Your task to perform on an android device: Open Youtube and go to the subscriptions tab Image 0: 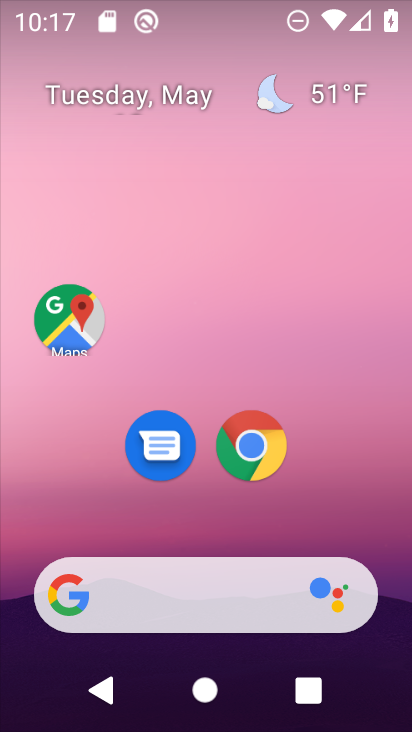
Step 0: drag from (193, 574) to (192, 105)
Your task to perform on an android device: Open Youtube and go to the subscriptions tab Image 1: 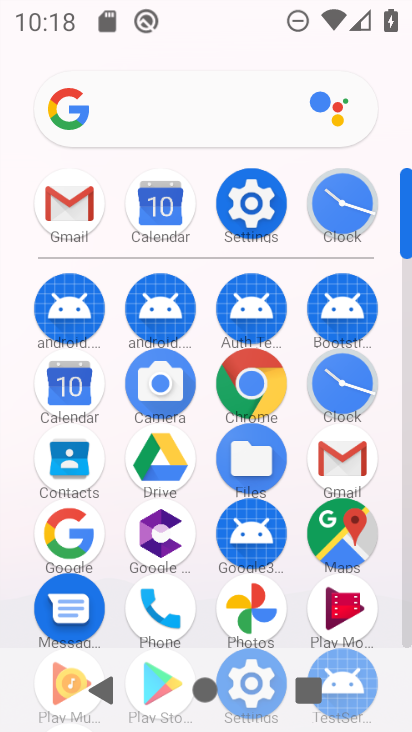
Step 1: drag from (204, 583) to (168, 185)
Your task to perform on an android device: Open Youtube and go to the subscriptions tab Image 2: 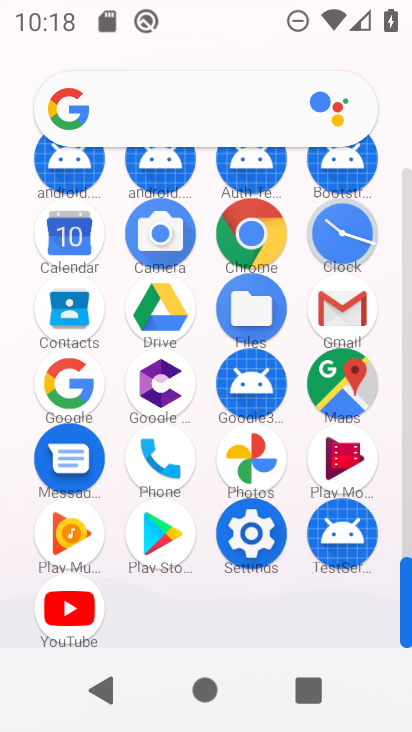
Step 2: click (77, 616)
Your task to perform on an android device: Open Youtube and go to the subscriptions tab Image 3: 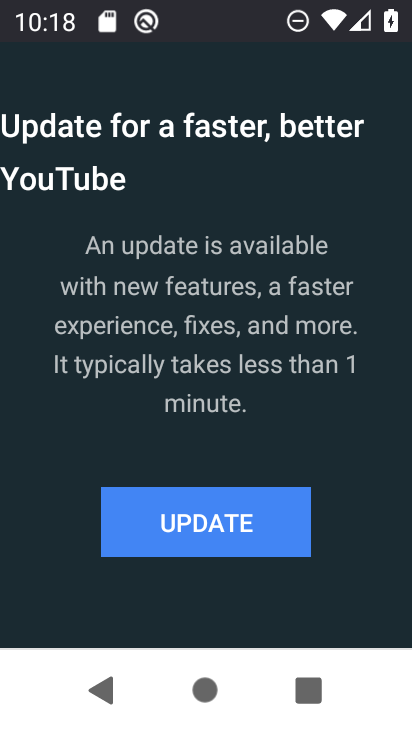
Step 3: click (209, 526)
Your task to perform on an android device: Open Youtube and go to the subscriptions tab Image 4: 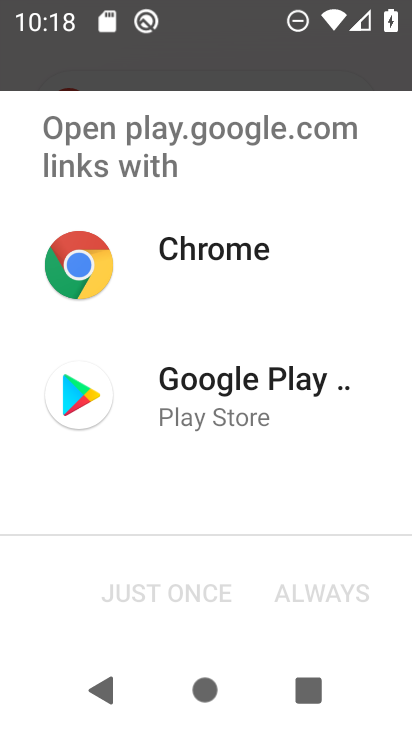
Step 4: click (160, 416)
Your task to perform on an android device: Open Youtube and go to the subscriptions tab Image 5: 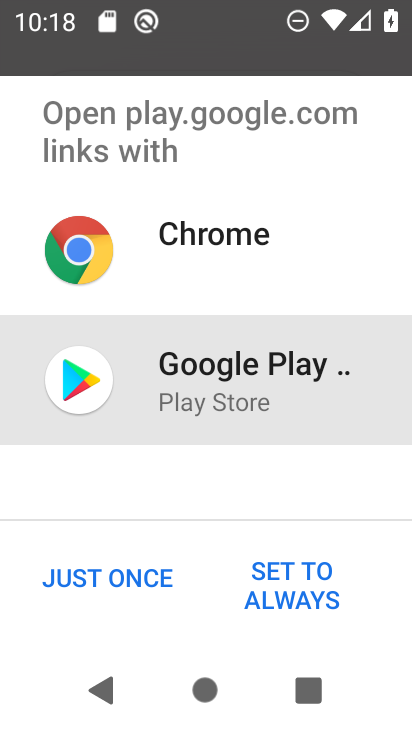
Step 5: click (104, 577)
Your task to perform on an android device: Open Youtube and go to the subscriptions tab Image 6: 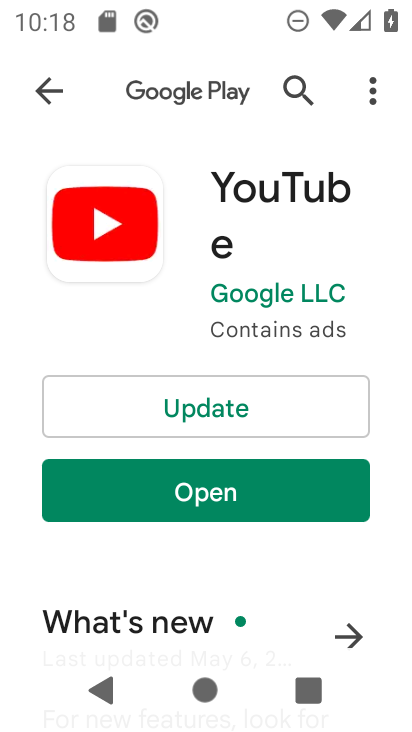
Step 6: click (216, 406)
Your task to perform on an android device: Open Youtube and go to the subscriptions tab Image 7: 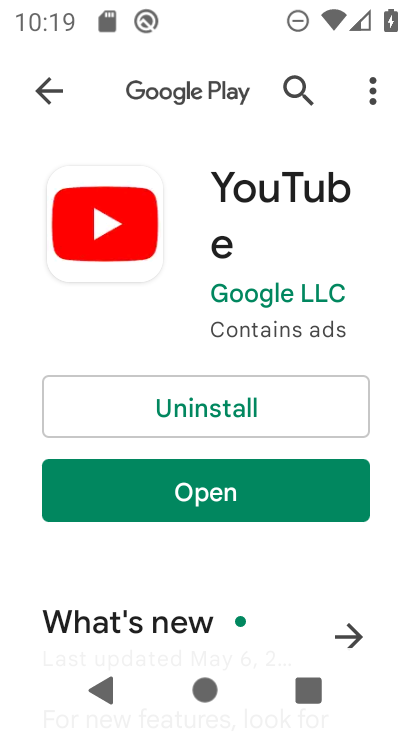
Step 7: click (282, 500)
Your task to perform on an android device: Open Youtube and go to the subscriptions tab Image 8: 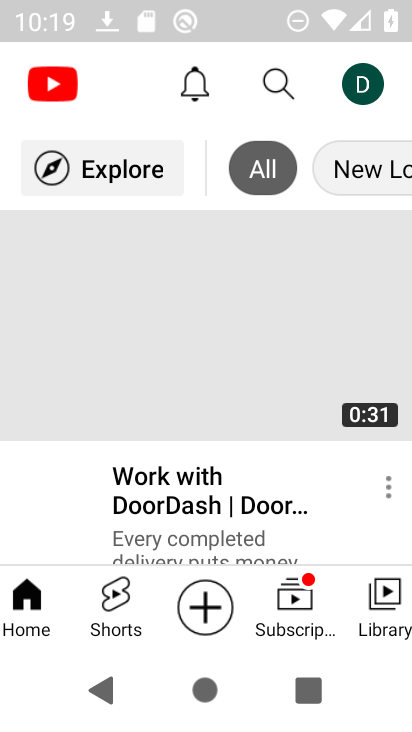
Step 8: click (290, 595)
Your task to perform on an android device: Open Youtube and go to the subscriptions tab Image 9: 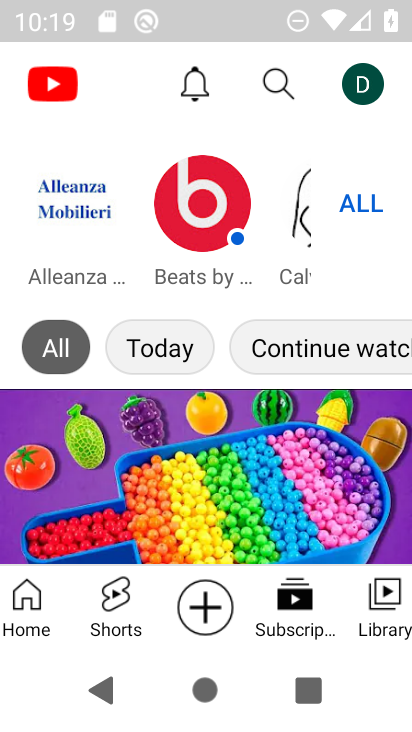
Step 9: task complete